Your task to perform on an android device: Go to notification settings Image 0: 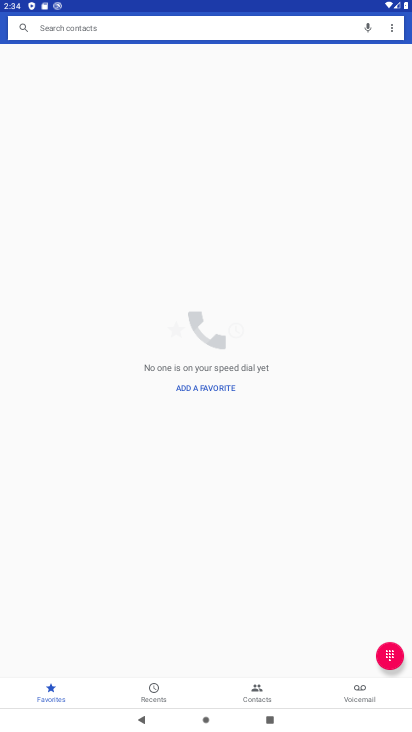
Step 0: drag from (334, 617) to (315, 440)
Your task to perform on an android device: Go to notification settings Image 1: 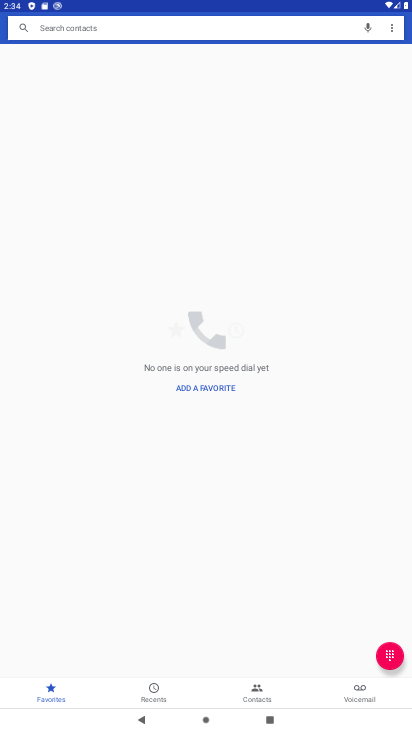
Step 1: press home button
Your task to perform on an android device: Go to notification settings Image 2: 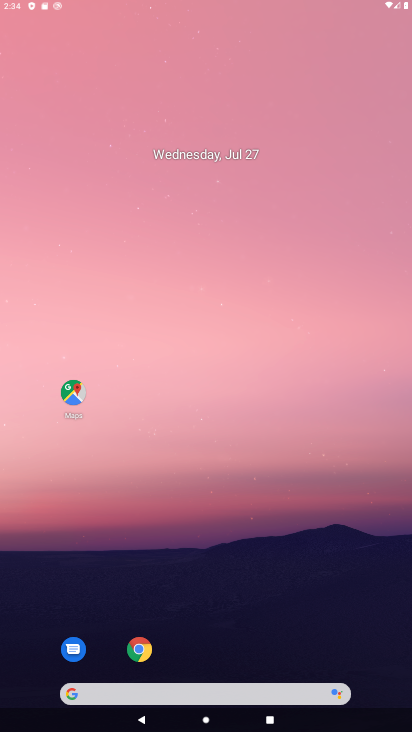
Step 2: drag from (312, 623) to (102, 44)
Your task to perform on an android device: Go to notification settings Image 3: 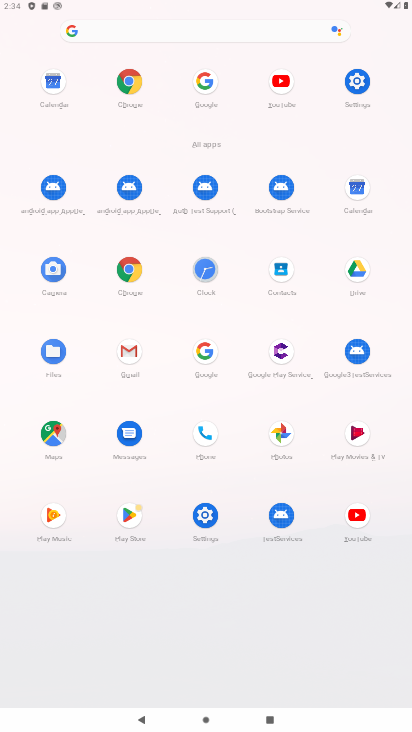
Step 3: click (213, 502)
Your task to perform on an android device: Go to notification settings Image 4: 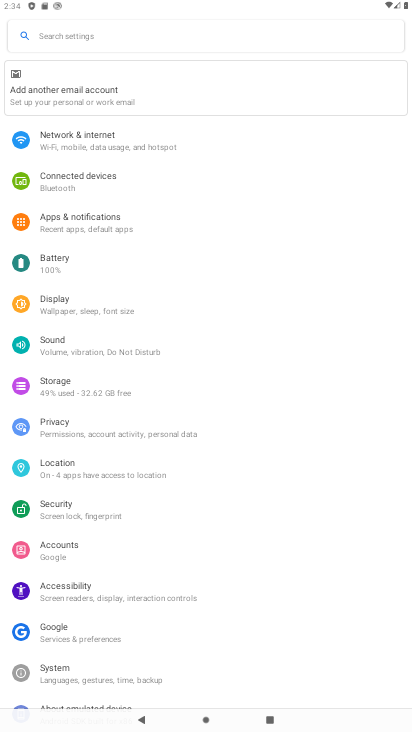
Step 4: click (79, 214)
Your task to perform on an android device: Go to notification settings Image 5: 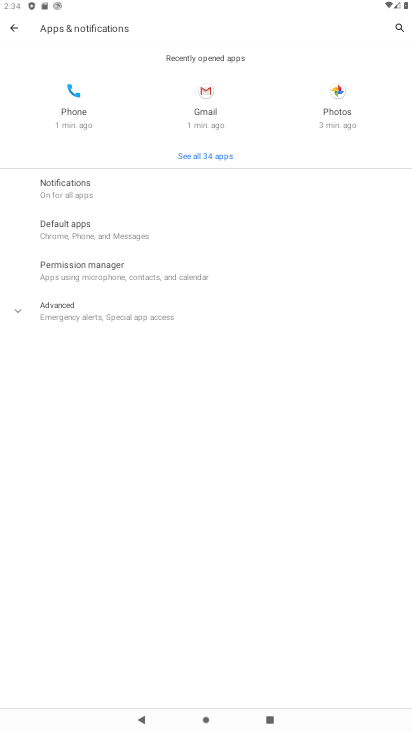
Step 5: click (56, 299)
Your task to perform on an android device: Go to notification settings Image 6: 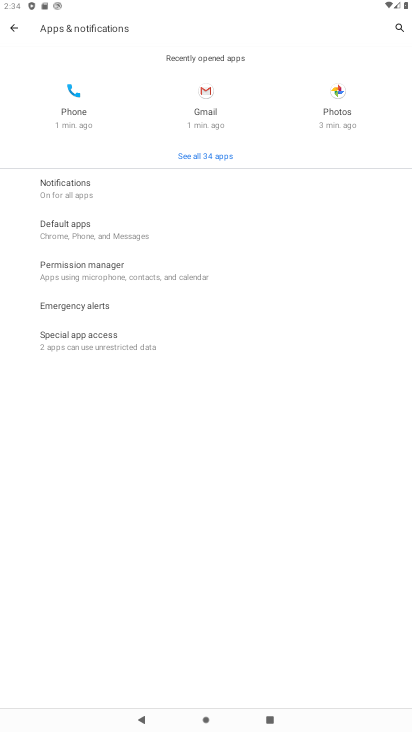
Step 6: click (64, 200)
Your task to perform on an android device: Go to notification settings Image 7: 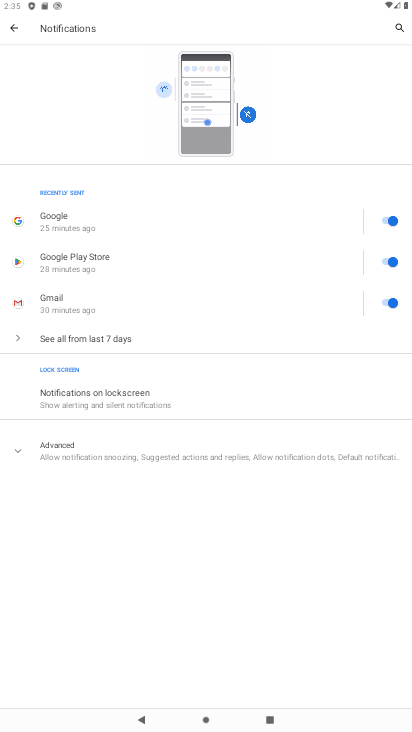
Step 7: task complete